Your task to perform on an android device: empty trash in the gmail app Image 0: 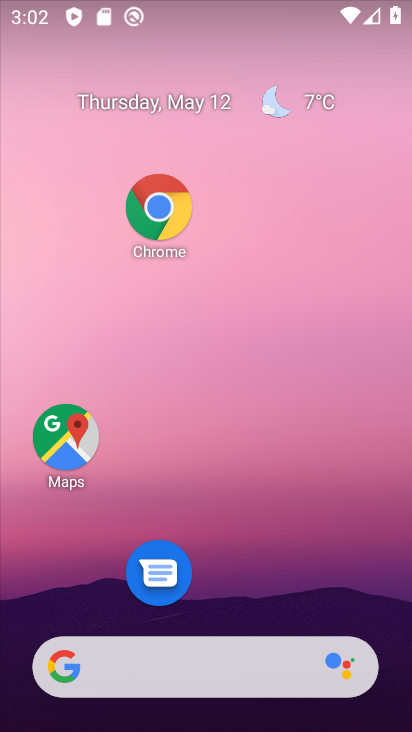
Step 0: drag from (231, 564) to (273, 191)
Your task to perform on an android device: empty trash in the gmail app Image 1: 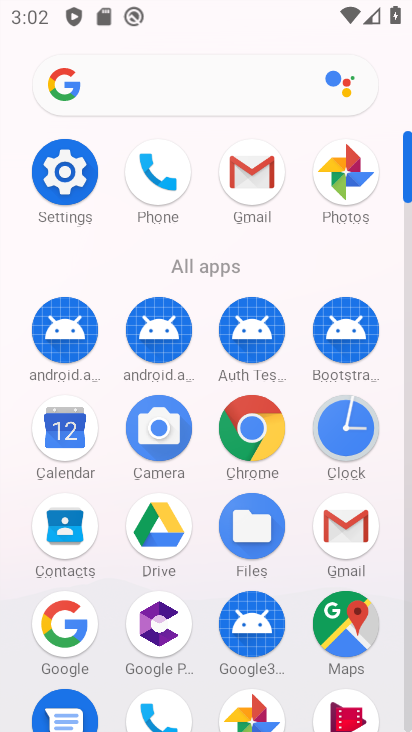
Step 1: click (348, 530)
Your task to perform on an android device: empty trash in the gmail app Image 2: 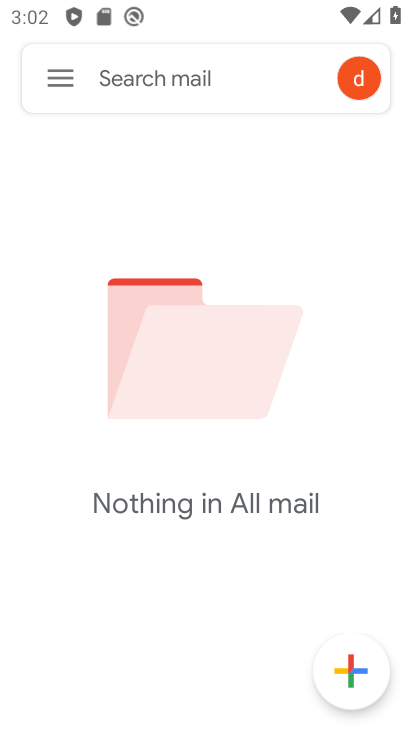
Step 2: click (61, 84)
Your task to perform on an android device: empty trash in the gmail app Image 3: 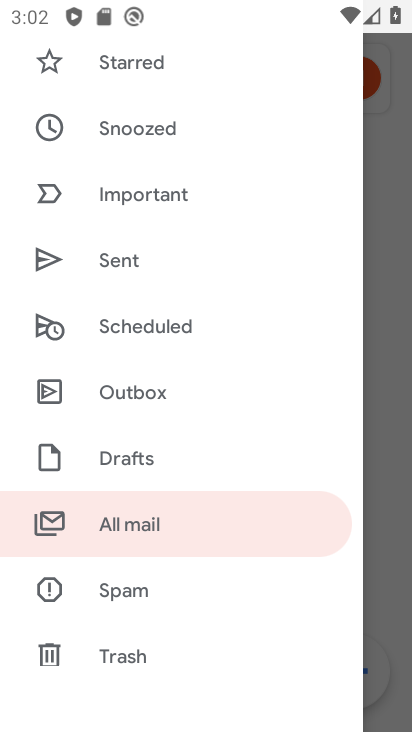
Step 3: click (141, 642)
Your task to perform on an android device: empty trash in the gmail app Image 4: 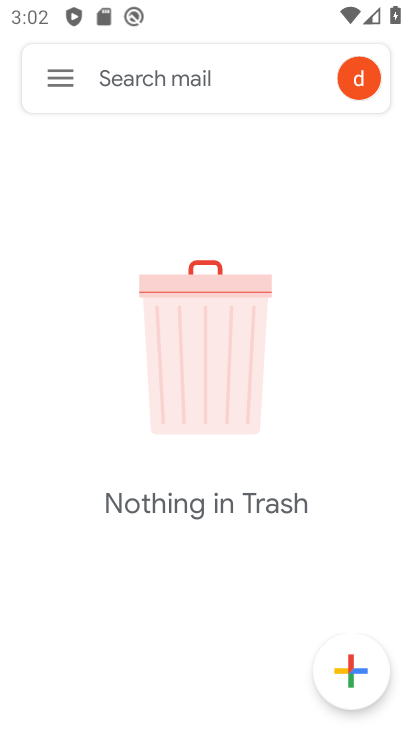
Step 4: task complete